Your task to perform on an android device: Open Youtube and go to the subscriptions tab Image 0: 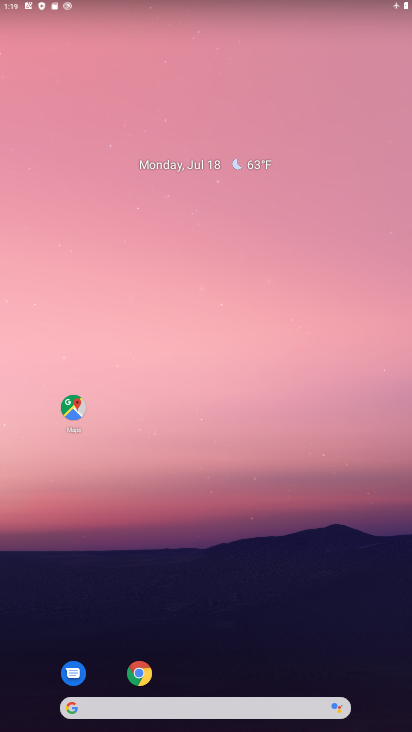
Step 0: drag from (265, 643) to (211, 183)
Your task to perform on an android device: Open Youtube and go to the subscriptions tab Image 1: 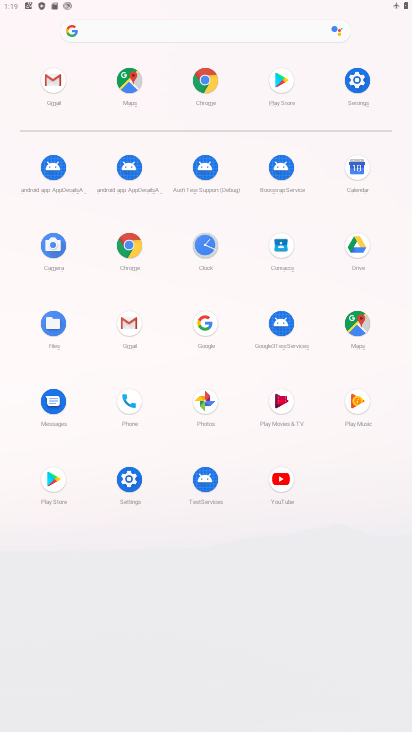
Step 1: click (294, 481)
Your task to perform on an android device: Open Youtube and go to the subscriptions tab Image 2: 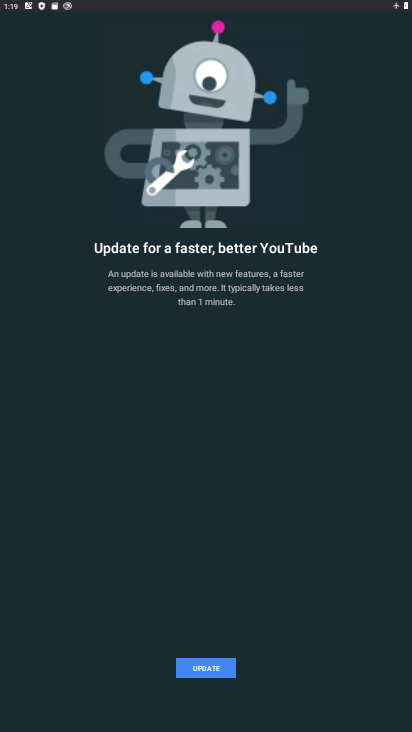
Step 2: task complete